Your task to perform on an android device: What's on my calendar tomorrow? Image 0: 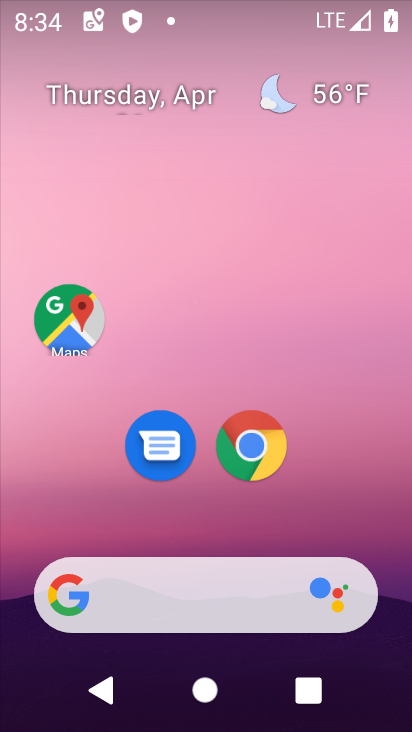
Step 0: drag from (361, 544) to (275, 8)
Your task to perform on an android device: What's on my calendar tomorrow? Image 1: 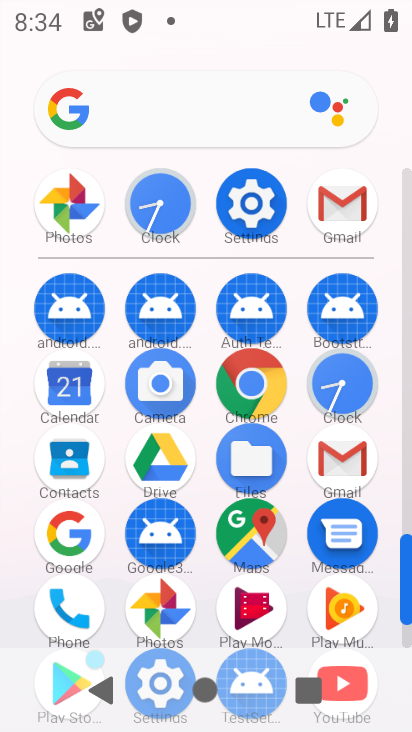
Step 1: click (66, 376)
Your task to perform on an android device: What's on my calendar tomorrow? Image 2: 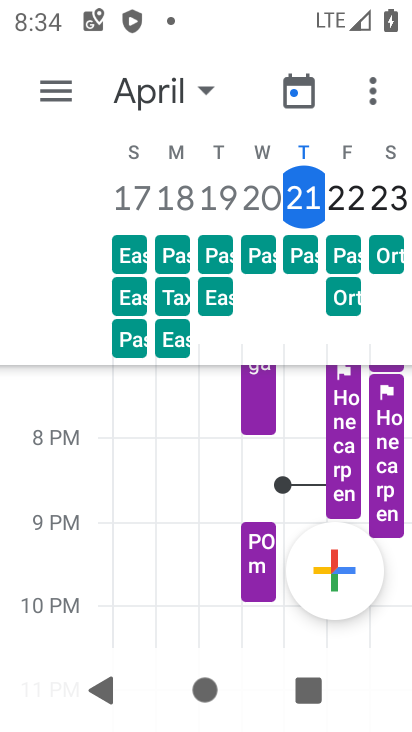
Step 2: click (206, 93)
Your task to perform on an android device: What's on my calendar tomorrow? Image 3: 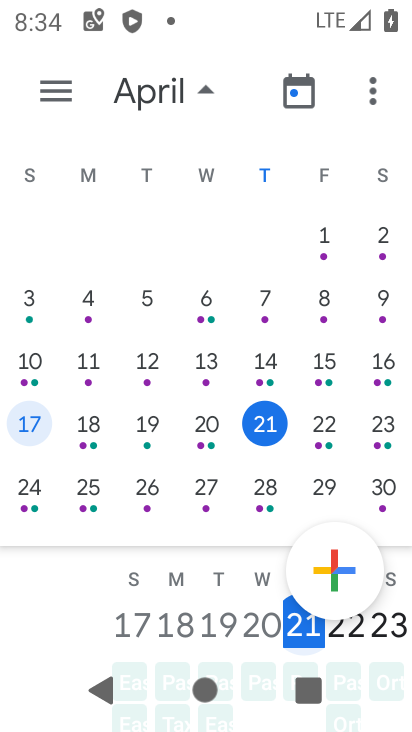
Step 3: click (317, 429)
Your task to perform on an android device: What's on my calendar tomorrow? Image 4: 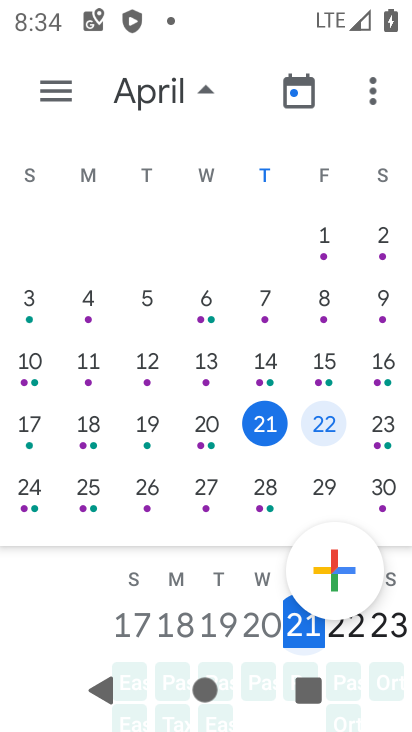
Step 4: click (46, 97)
Your task to perform on an android device: What's on my calendar tomorrow? Image 5: 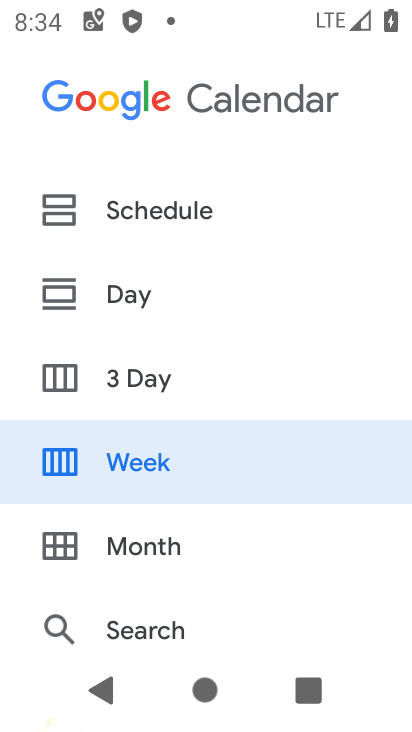
Step 5: click (83, 208)
Your task to perform on an android device: What's on my calendar tomorrow? Image 6: 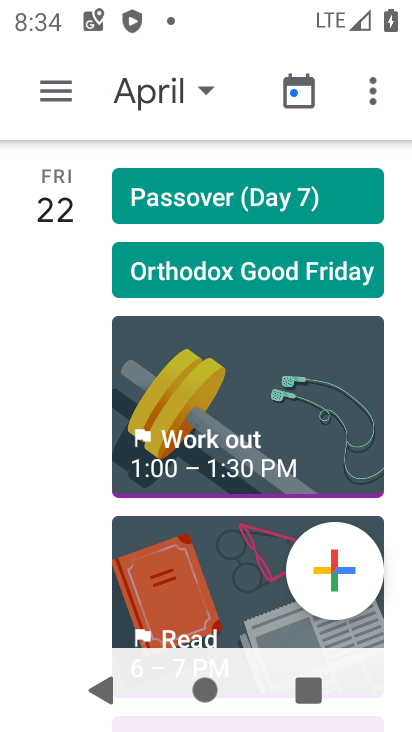
Step 6: drag from (225, 454) to (214, 204)
Your task to perform on an android device: What's on my calendar tomorrow? Image 7: 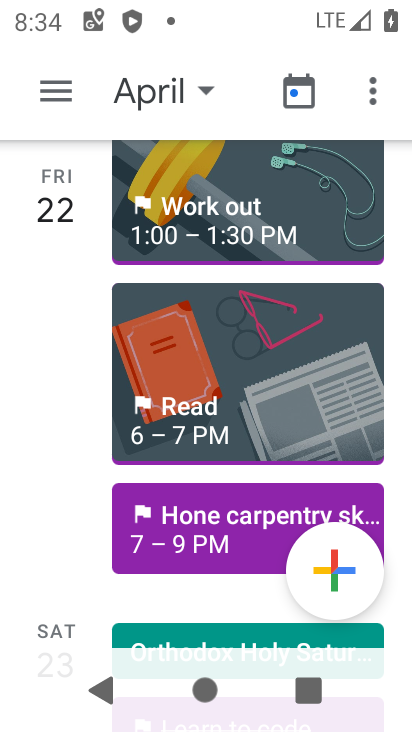
Step 7: click (215, 507)
Your task to perform on an android device: What's on my calendar tomorrow? Image 8: 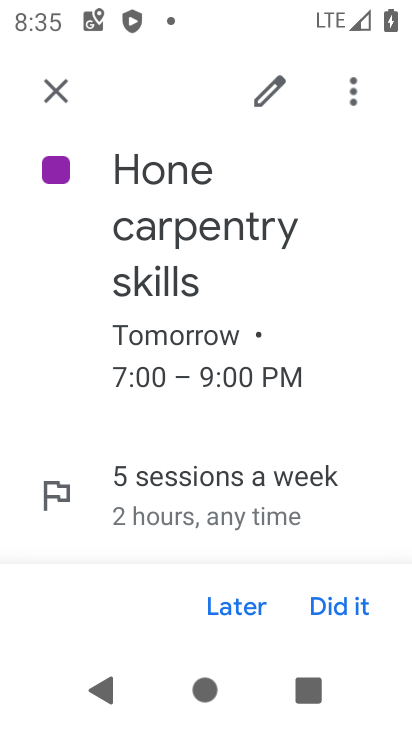
Step 8: task complete